Your task to perform on an android device: Turn on the flashlight Image 0: 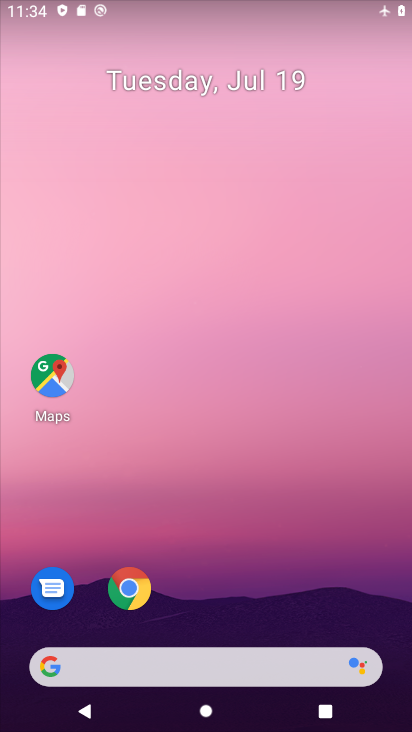
Step 0: drag from (402, 592) to (224, 30)
Your task to perform on an android device: Turn on the flashlight Image 1: 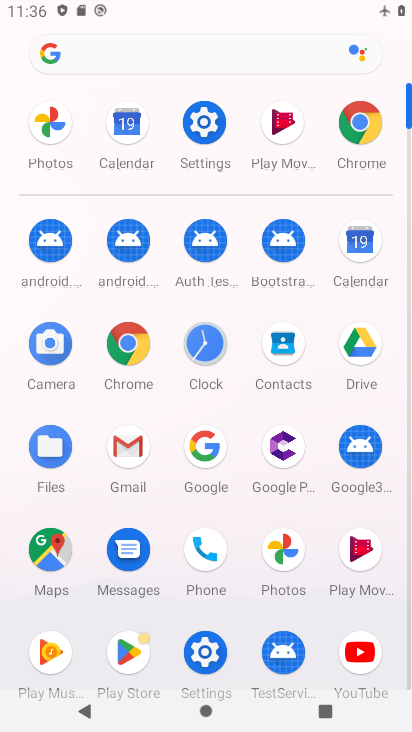
Step 1: click (206, 646)
Your task to perform on an android device: Turn on the flashlight Image 2: 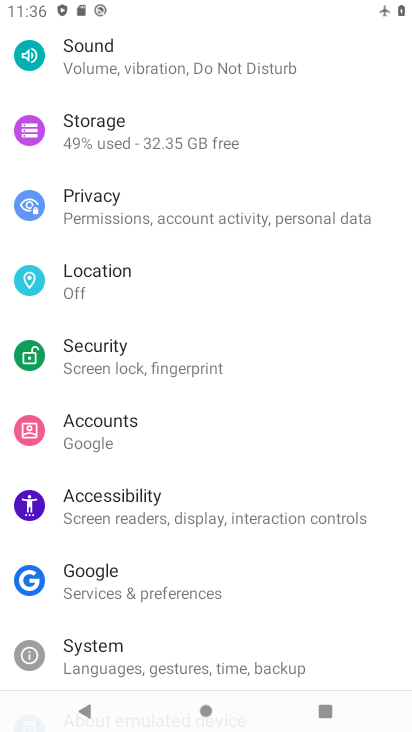
Step 2: task complete